Your task to perform on an android device: show emergency info Image 0: 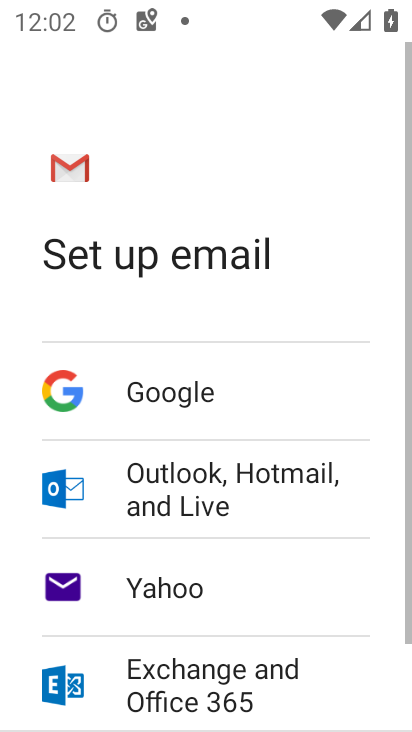
Step 0: press home button
Your task to perform on an android device: show emergency info Image 1: 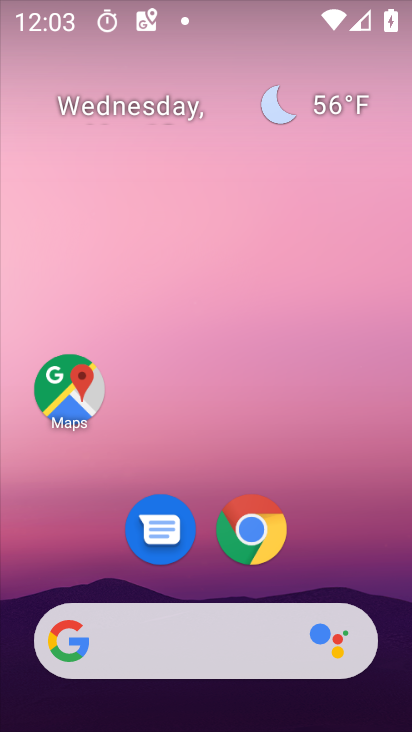
Step 1: drag from (169, 588) to (184, 136)
Your task to perform on an android device: show emergency info Image 2: 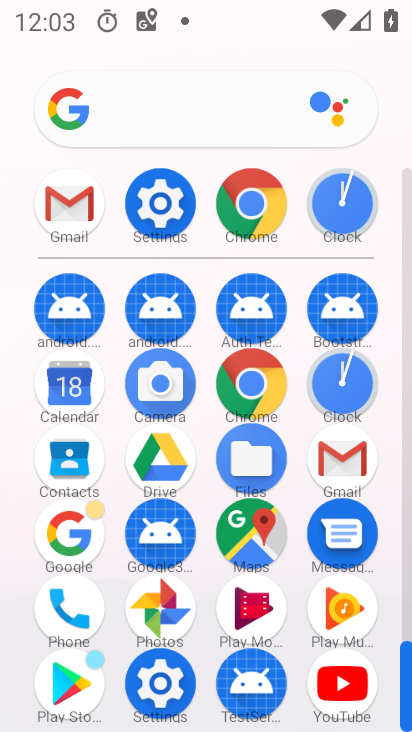
Step 2: click (150, 218)
Your task to perform on an android device: show emergency info Image 3: 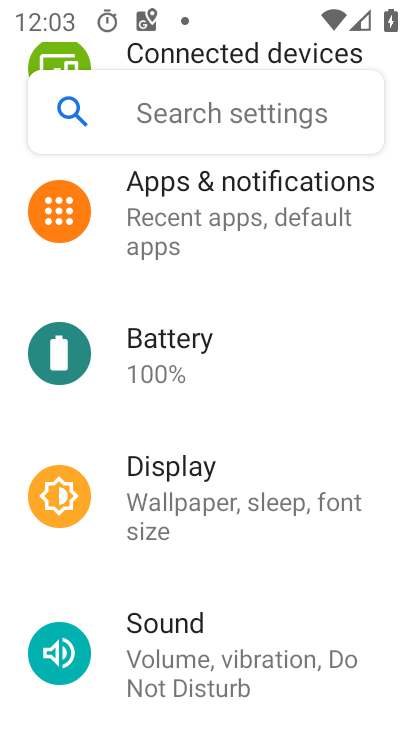
Step 3: drag from (179, 660) to (253, 217)
Your task to perform on an android device: show emergency info Image 4: 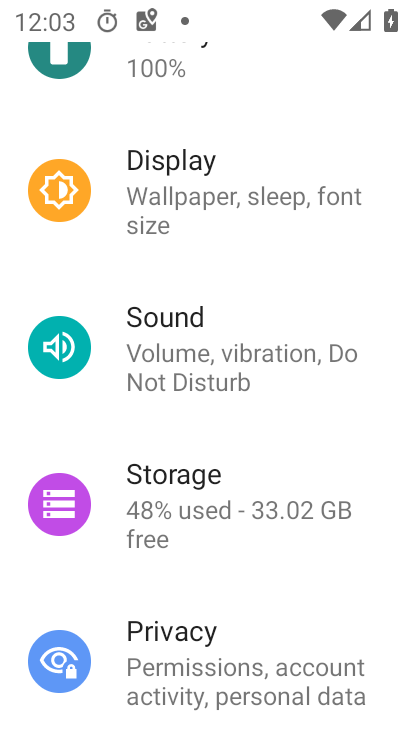
Step 4: drag from (175, 672) to (228, 159)
Your task to perform on an android device: show emergency info Image 5: 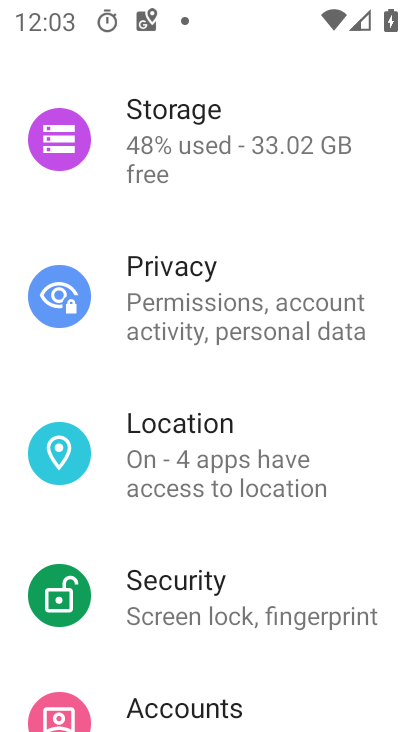
Step 5: drag from (132, 711) to (226, 261)
Your task to perform on an android device: show emergency info Image 6: 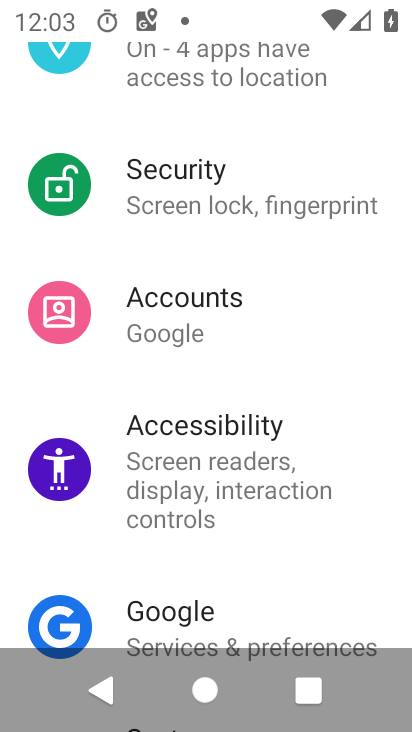
Step 6: drag from (189, 601) to (230, 162)
Your task to perform on an android device: show emergency info Image 7: 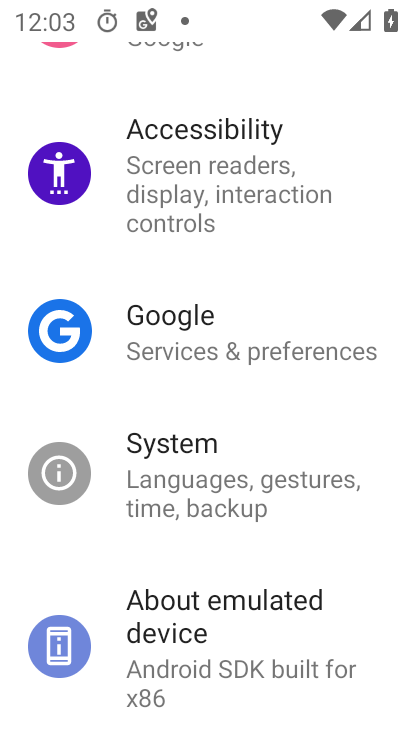
Step 7: click (236, 634)
Your task to perform on an android device: show emergency info Image 8: 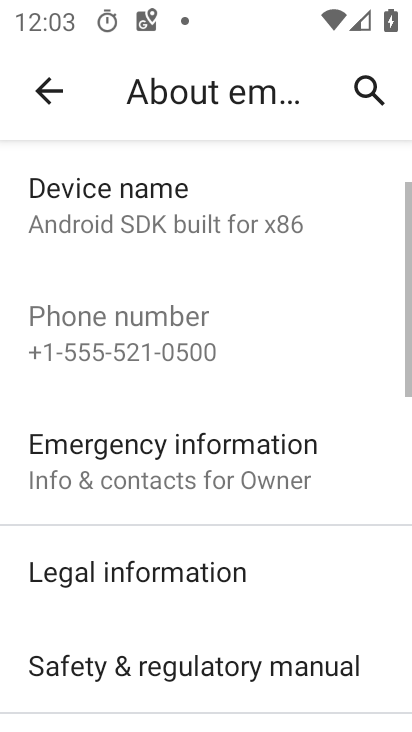
Step 8: drag from (179, 622) to (263, 265)
Your task to perform on an android device: show emergency info Image 9: 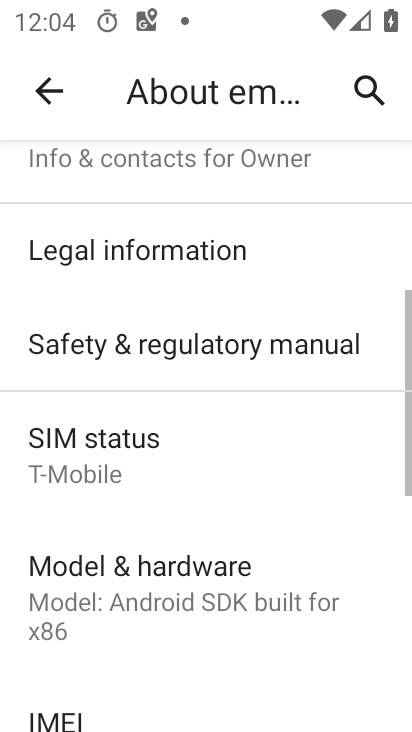
Step 9: click (242, 174)
Your task to perform on an android device: show emergency info Image 10: 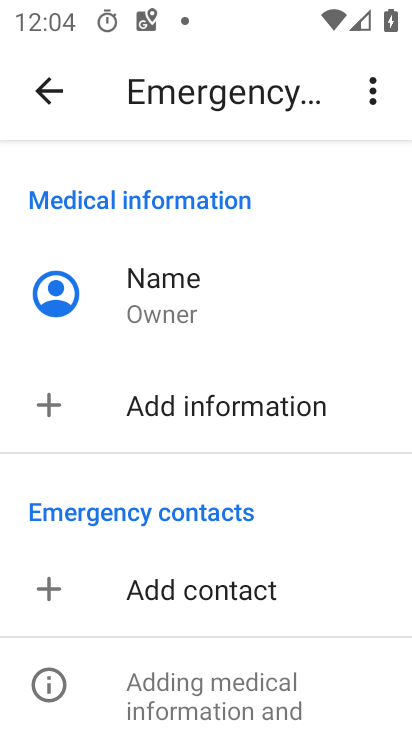
Step 10: task complete